Your task to perform on an android device: Turn off the flashlight Image 0: 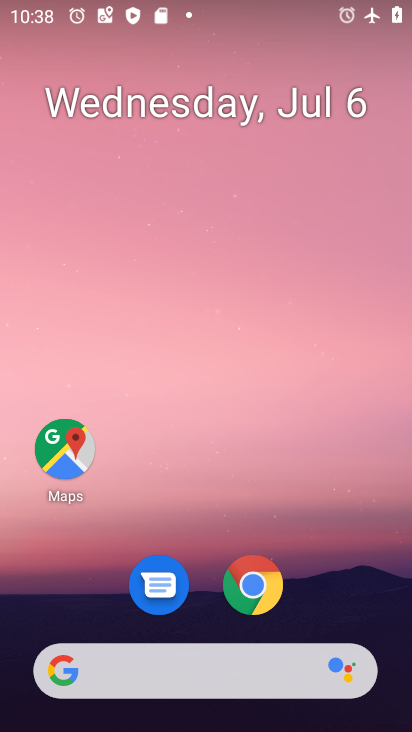
Step 0: drag from (222, 490) to (257, 0)
Your task to perform on an android device: Turn off the flashlight Image 1: 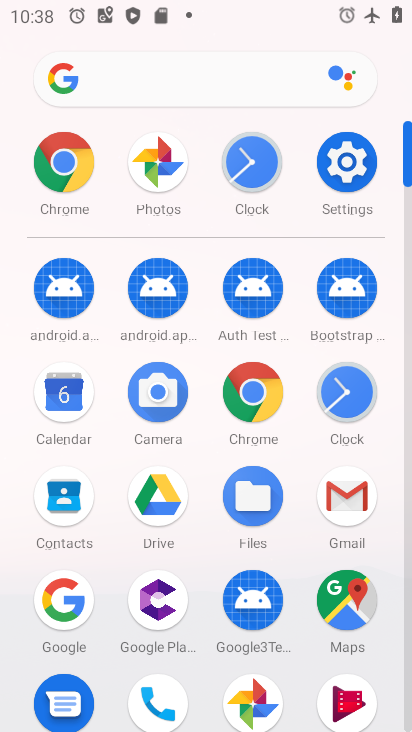
Step 1: click (348, 170)
Your task to perform on an android device: Turn off the flashlight Image 2: 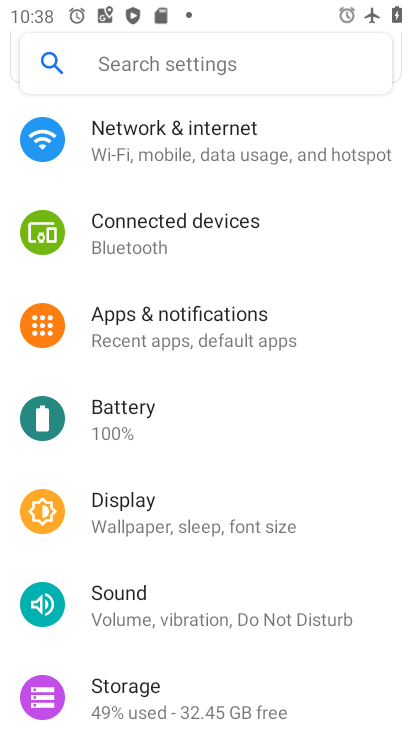
Step 2: click (285, 60)
Your task to perform on an android device: Turn off the flashlight Image 3: 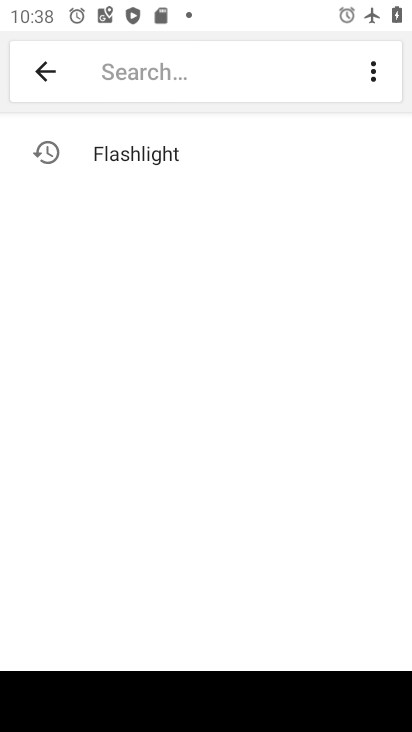
Step 3: click (156, 159)
Your task to perform on an android device: Turn off the flashlight Image 4: 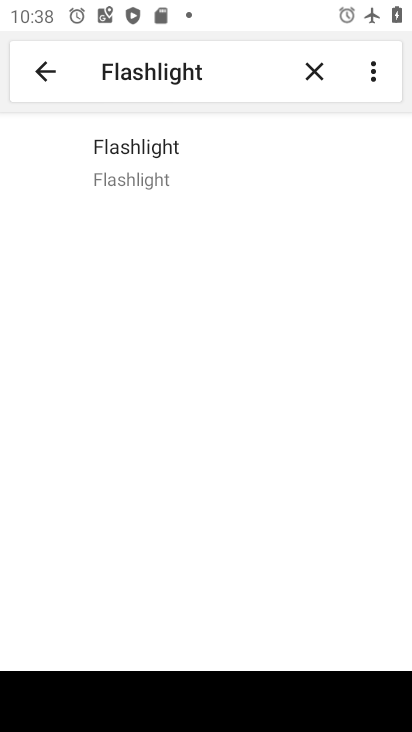
Step 4: click (156, 157)
Your task to perform on an android device: Turn off the flashlight Image 5: 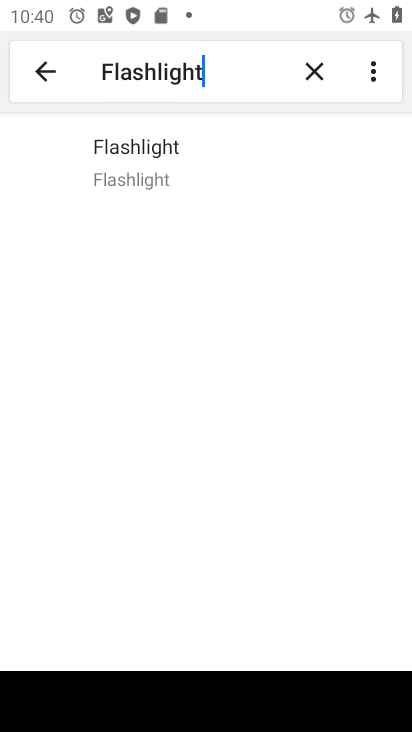
Step 5: task complete